Your task to perform on an android device: turn on translation in the chrome app Image 0: 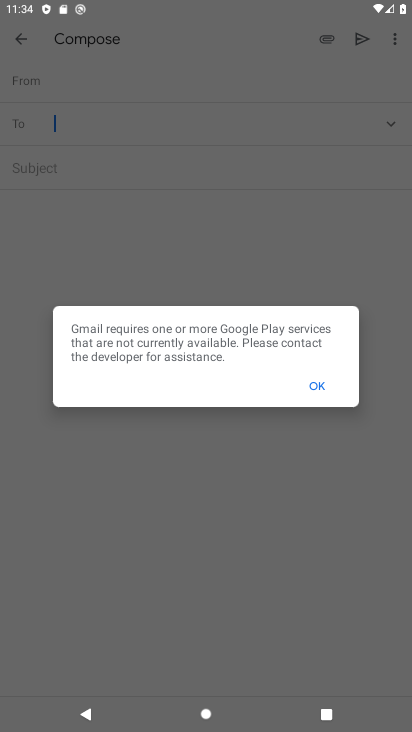
Step 0: drag from (196, 629) to (189, 246)
Your task to perform on an android device: turn on translation in the chrome app Image 1: 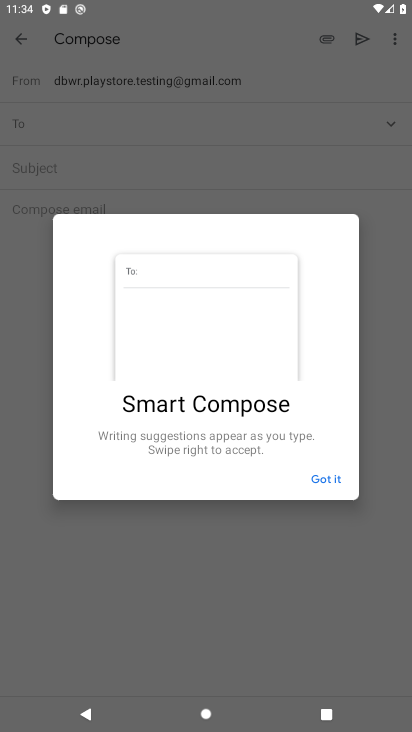
Step 1: press home button
Your task to perform on an android device: turn on translation in the chrome app Image 2: 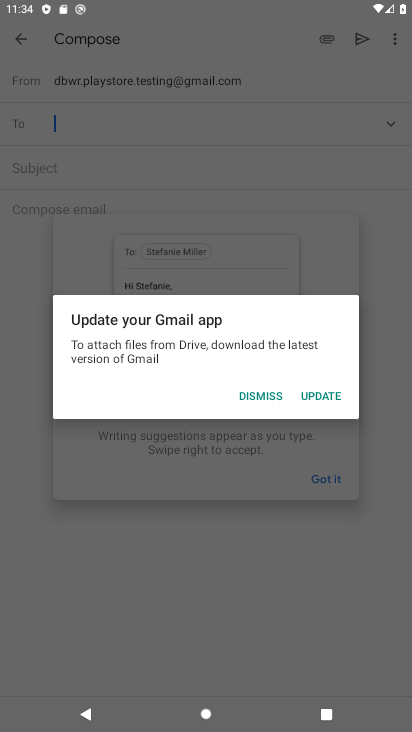
Step 2: press home button
Your task to perform on an android device: turn on translation in the chrome app Image 3: 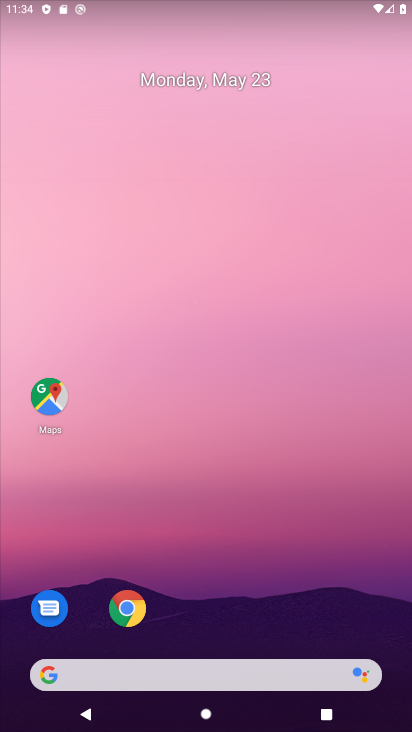
Step 3: click (122, 599)
Your task to perform on an android device: turn on translation in the chrome app Image 4: 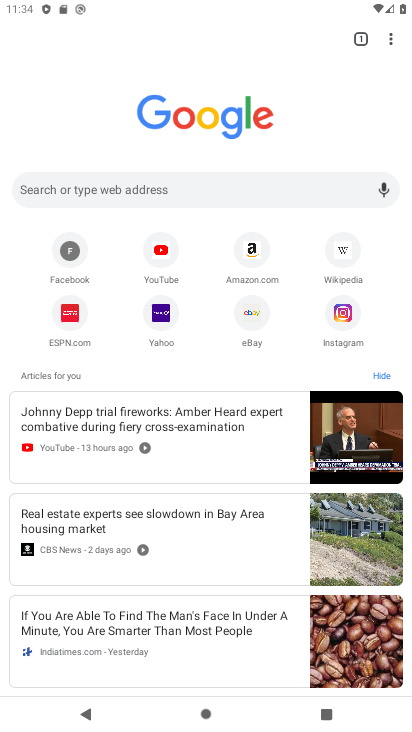
Step 4: click (389, 33)
Your task to perform on an android device: turn on translation in the chrome app Image 5: 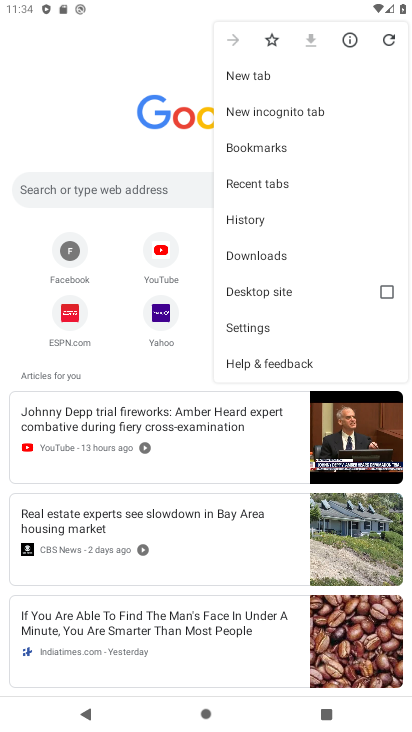
Step 5: click (389, 32)
Your task to perform on an android device: turn on translation in the chrome app Image 6: 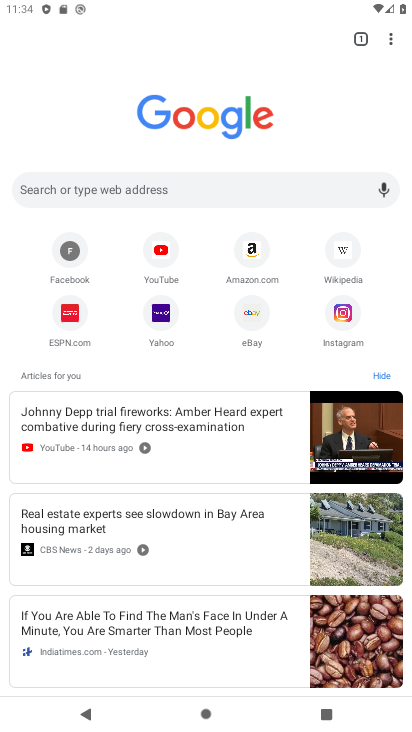
Step 6: click (387, 34)
Your task to perform on an android device: turn on translation in the chrome app Image 7: 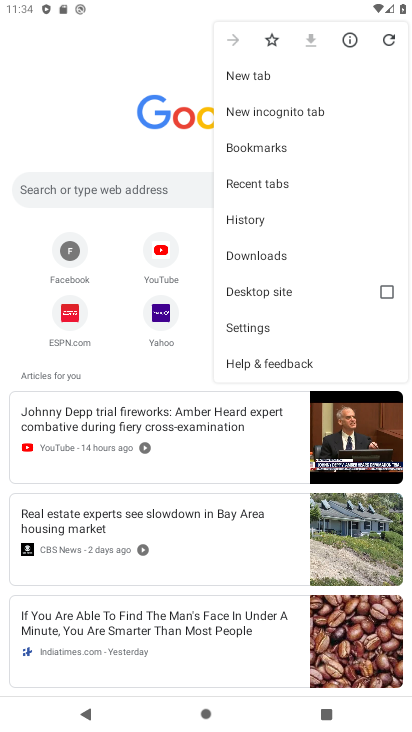
Step 7: click (276, 325)
Your task to perform on an android device: turn on translation in the chrome app Image 8: 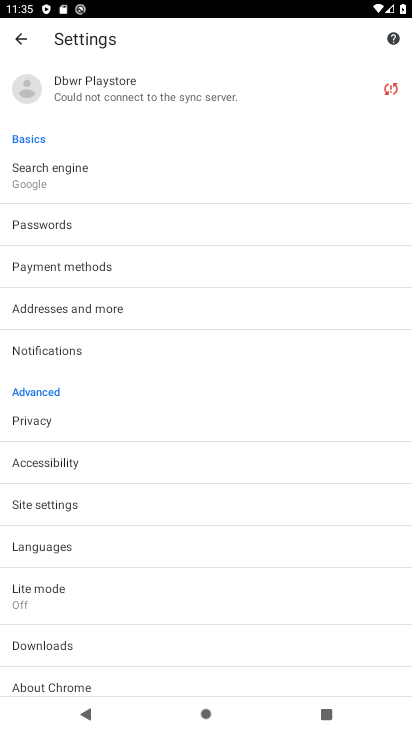
Step 8: click (76, 548)
Your task to perform on an android device: turn on translation in the chrome app Image 9: 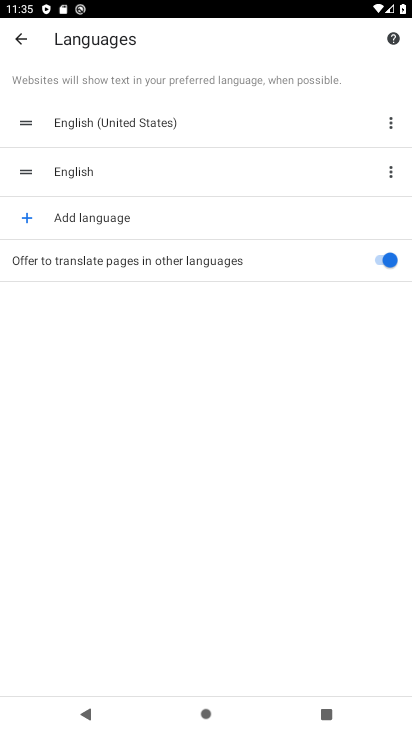
Step 9: task complete